Your task to perform on an android device: Open settings Image 0: 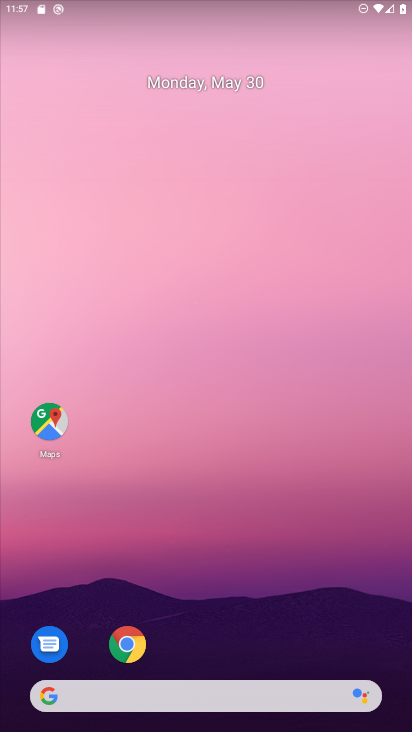
Step 0: drag from (204, 593) to (241, 138)
Your task to perform on an android device: Open settings Image 1: 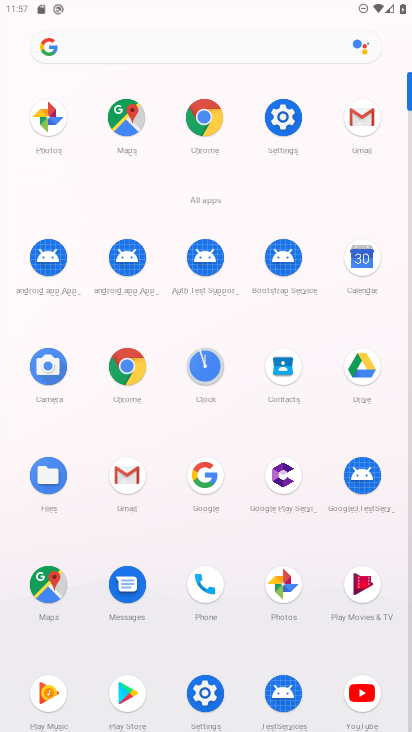
Step 1: click (282, 125)
Your task to perform on an android device: Open settings Image 2: 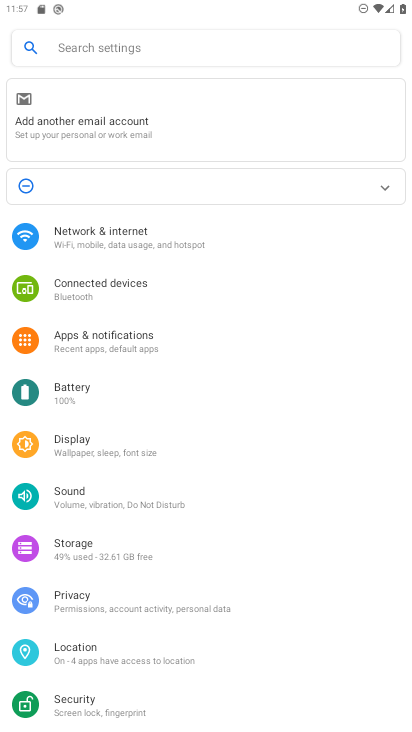
Step 2: task complete